Your task to perform on an android device: Open calendar and show me the third week of next month Image 0: 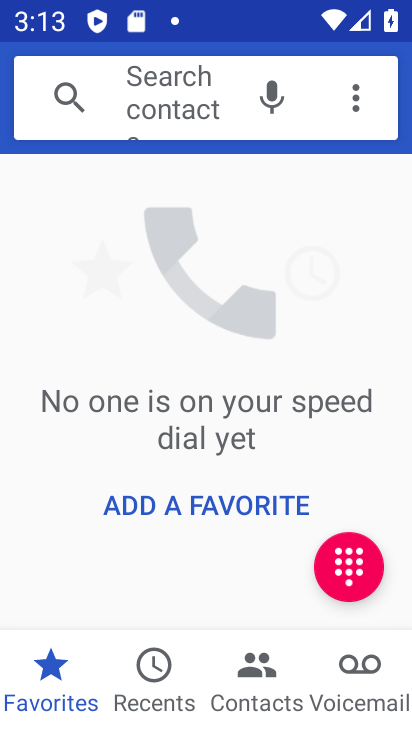
Step 0: press home button
Your task to perform on an android device: Open calendar and show me the third week of next month Image 1: 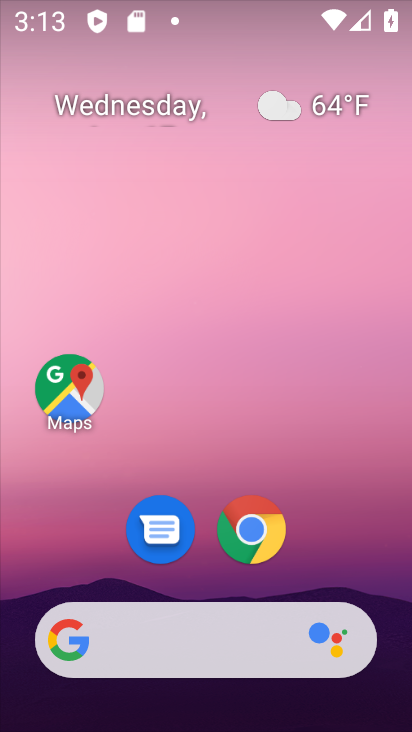
Step 1: drag from (182, 628) to (252, 216)
Your task to perform on an android device: Open calendar and show me the third week of next month Image 2: 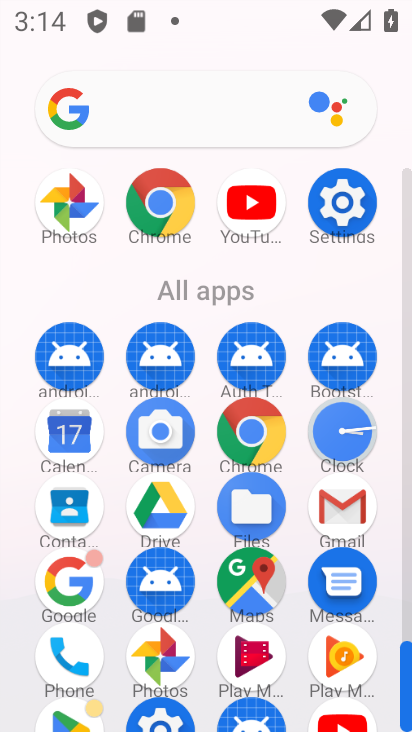
Step 2: click (76, 437)
Your task to perform on an android device: Open calendar and show me the third week of next month Image 3: 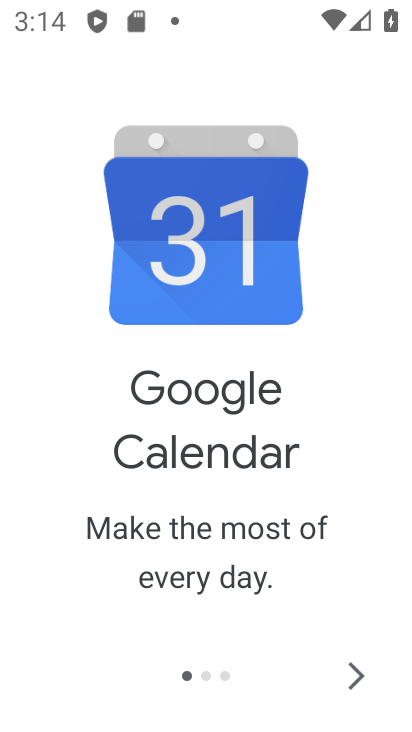
Step 3: click (360, 683)
Your task to perform on an android device: Open calendar and show me the third week of next month Image 4: 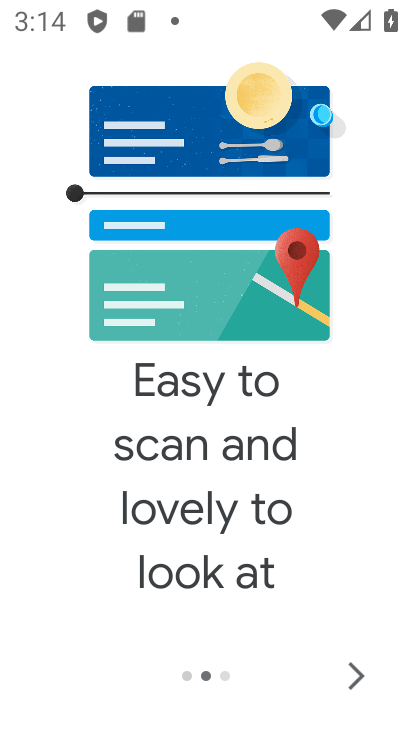
Step 4: click (360, 683)
Your task to perform on an android device: Open calendar and show me the third week of next month Image 5: 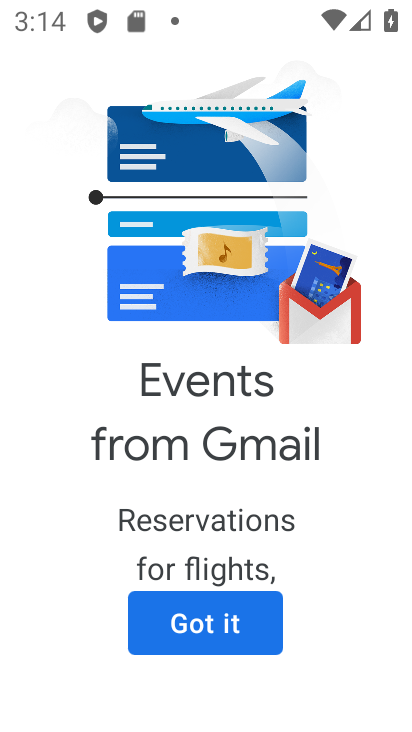
Step 5: click (260, 642)
Your task to perform on an android device: Open calendar and show me the third week of next month Image 6: 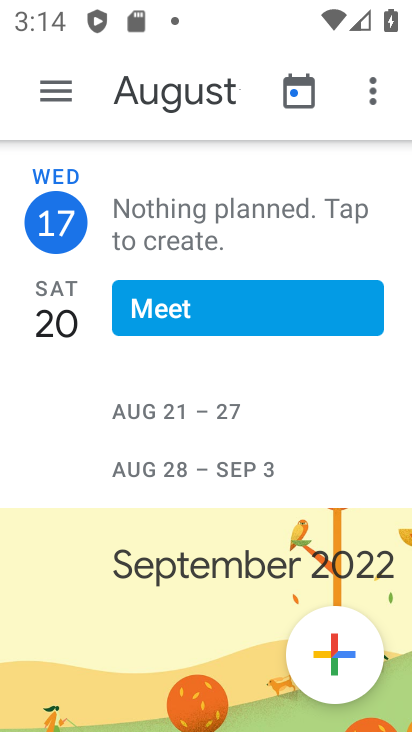
Step 6: click (56, 87)
Your task to perform on an android device: Open calendar and show me the third week of next month Image 7: 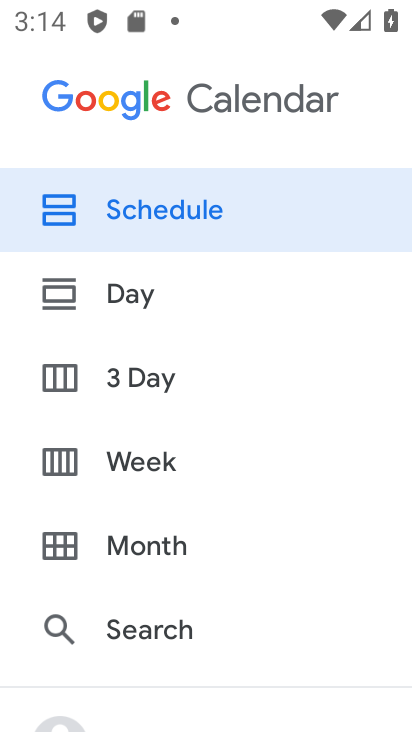
Step 7: click (134, 560)
Your task to perform on an android device: Open calendar and show me the third week of next month Image 8: 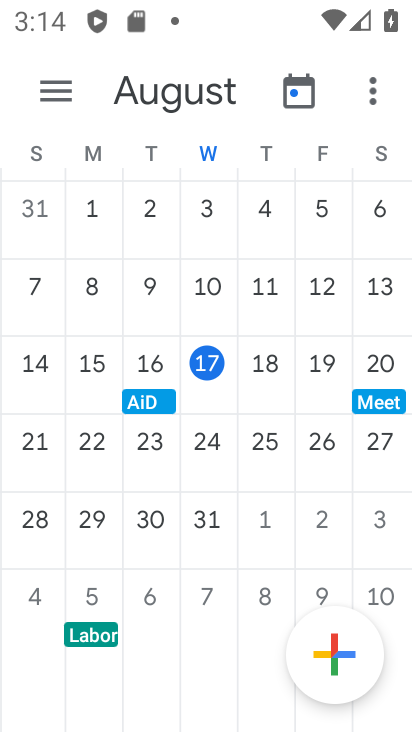
Step 8: task complete